Your task to perform on an android device: toggle javascript in the chrome app Image 0: 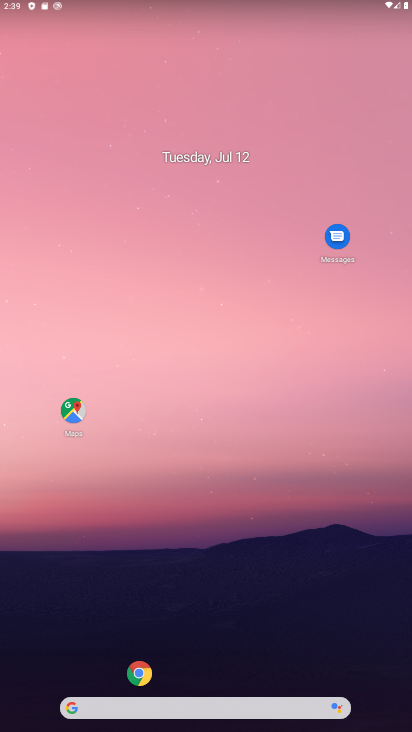
Step 0: click (136, 669)
Your task to perform on an android device: toggle javascript in the chrome app Image 1: 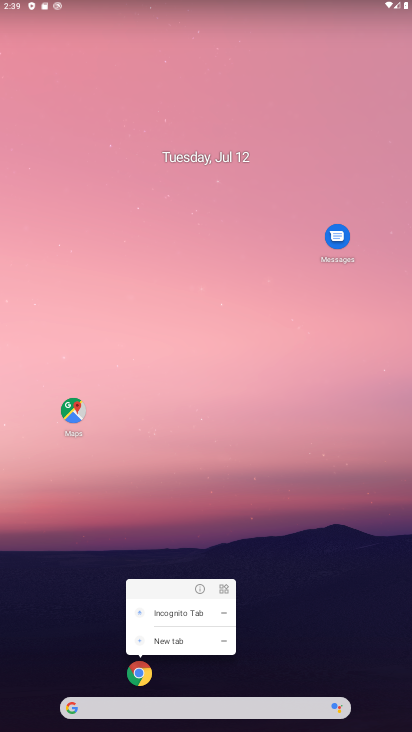
Step 1: click (134, 669)
Your task to perform on an android device: toggle javascript in the chrome app Image 2: 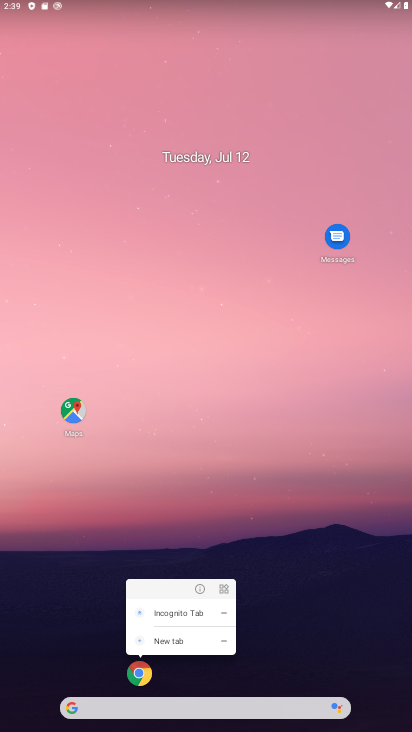
Step 2: click (134, 685)
Your task to perform on an android device: toggle javascript in the chrome app Image 3: 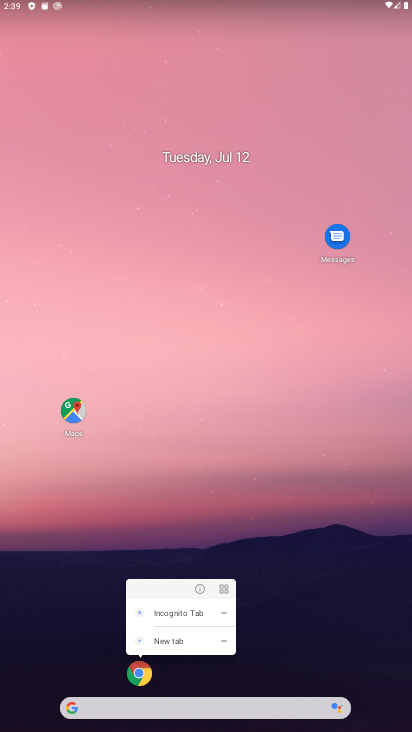
Step 3: click (142, 662)
Your task to perform on an android device: toggle javascript in the chrome app Image 4: 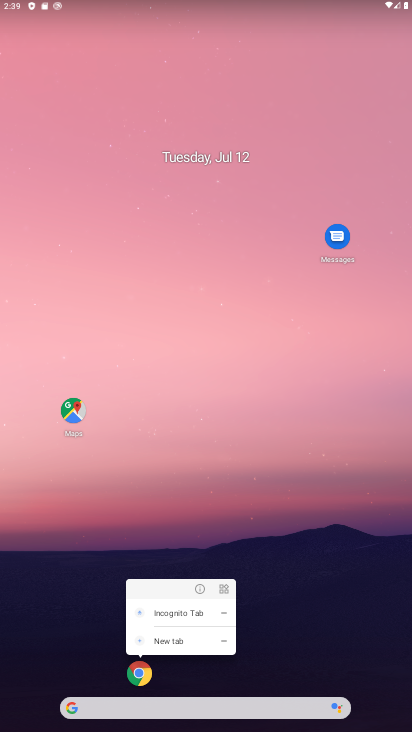
Step 4: task complete